Your task to perform on an android device: Go to accessibility settings Image 0: 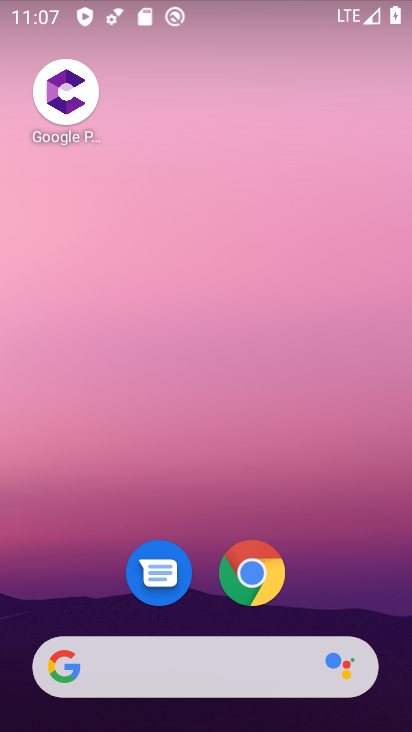
Step 0: drag from (136, 683) to (294, 236)
Your task to perform on an android device: Go to accessibility settings Image 1: 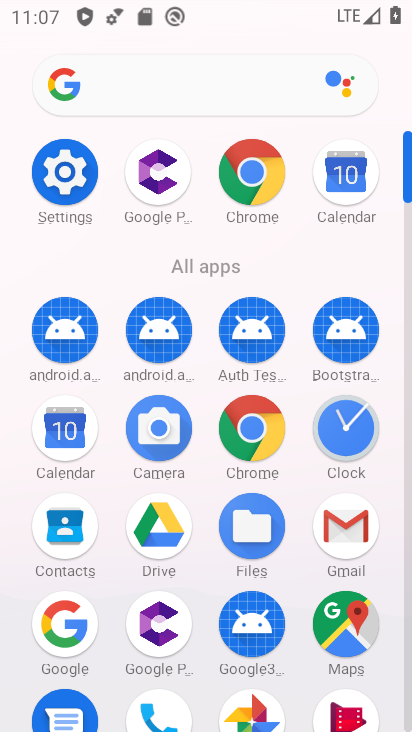
Step 1: click (66, 171)
Your task to perform on an android device: Go to accessibility settings Image 2: 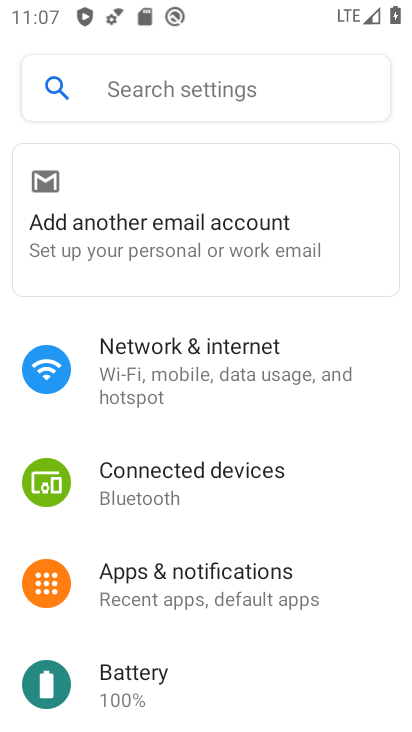
Step 2: drag from (218, 660) to (354, 242)
Your task to perform on an android device: Go to accessibility settings Image 3: 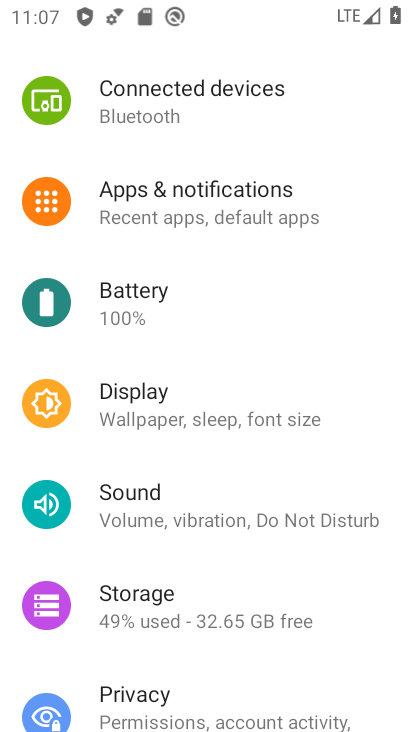
Step 3: drag from (192, 648) to (281, 291)
Your task to perform on an android device: Go to accessibility settings Image 4: 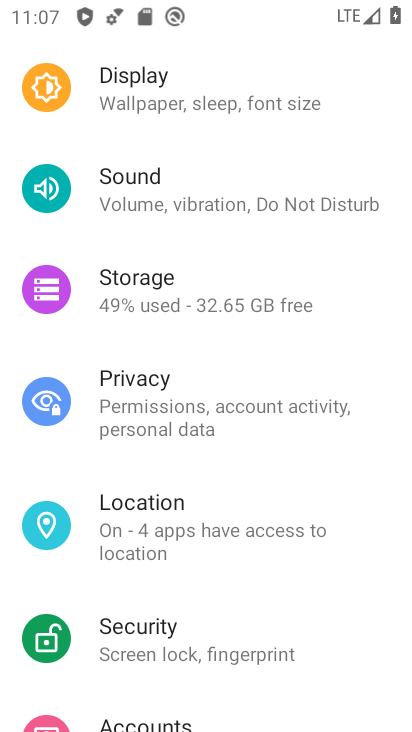
Step 4: drag from (186, 628) to (312, 207)
Your task to perform on an android device: Go to accessibility settings Image 5: 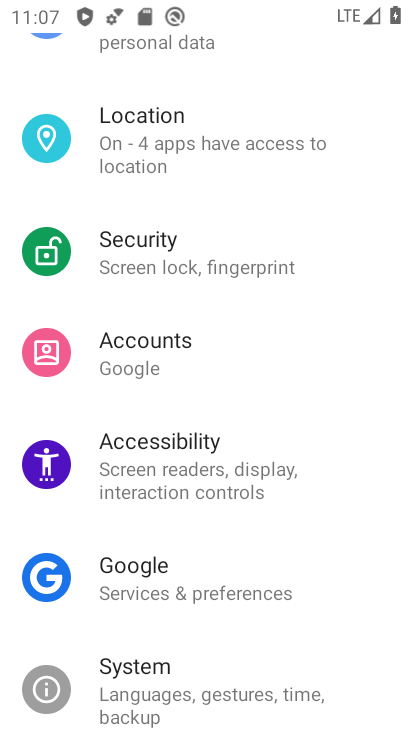
Step 5: click (179, 470)
Your task to perform on an android device: Go to accessibility settings Image 6: 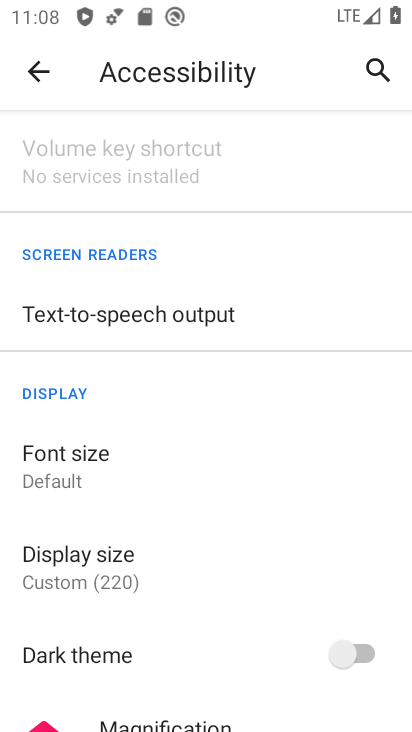
Step 6: task complete